Your task to perform on an android device: see creations saved in the google photos Image 0: 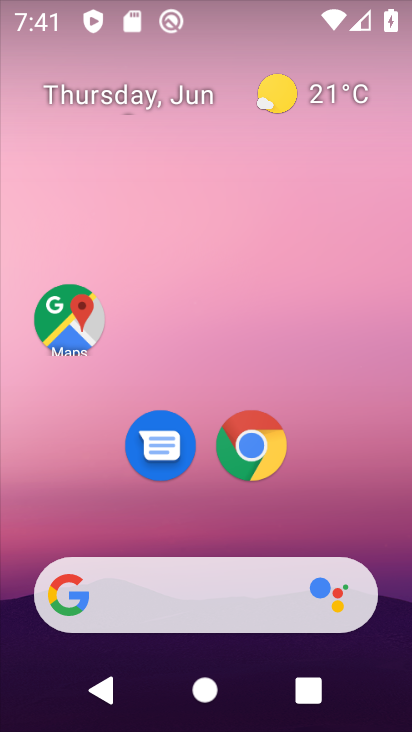
Step 0: drag from (341, 505) to (379, 192)
Your task to perform on an android device: see creations saved in the google photos Image 1: 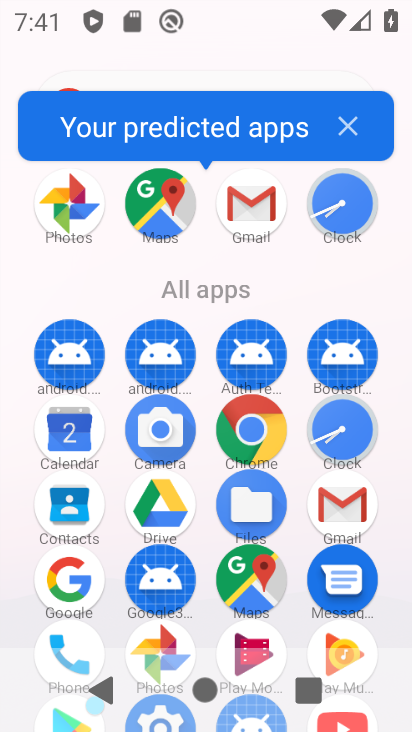
Step 1: click (73, 218)
Your task to perform on an android device: see creations saved in the google photos Image 2: 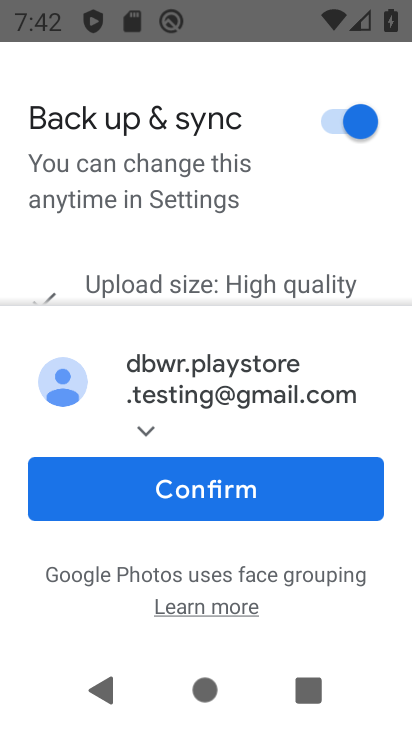
Step 2: click (237, 506)
Your task to perform on an android device: see creations saved in the google photos Image 3: 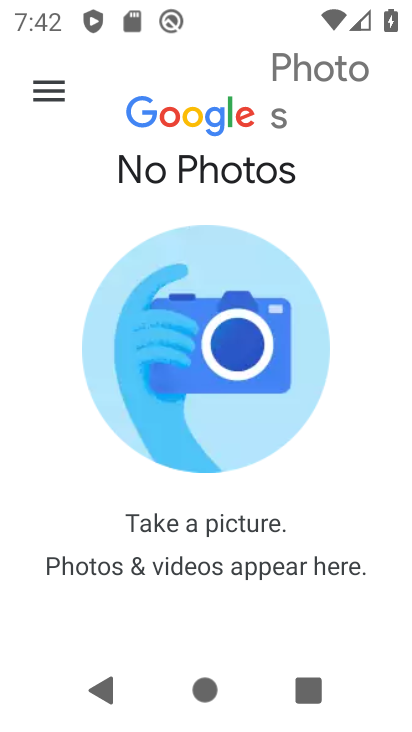
Step 3: click (58, 89)
Your task to perform on an android device: see creations saved in the google photos Image 4: 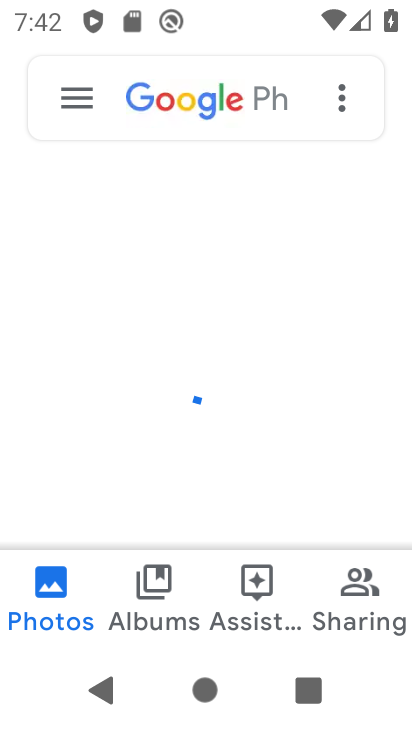
Step 4: click (185, 103)
Your task to perform on an android device: see creations saved in the google photos Image 5: 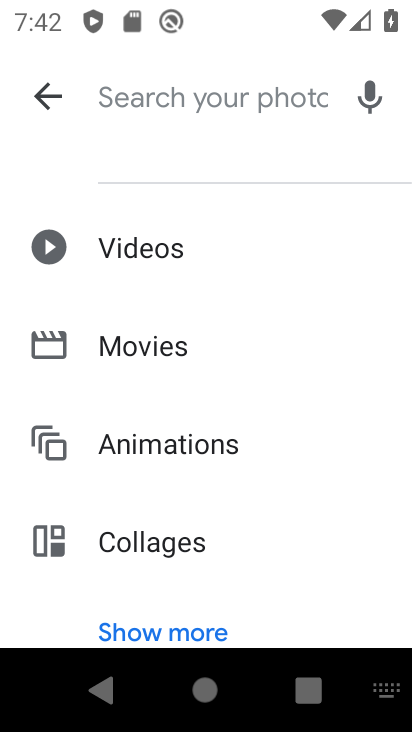
Step 5: drag from (185, 506) to (223, 222)
Your task to perform on an android device: see creations saved in the google photos Image 6: 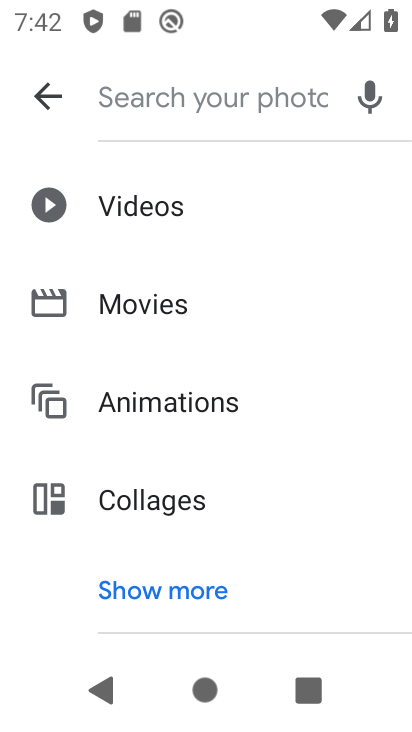
Step 6: click (195, 593)
Your task to perform on an android device: see creations saved in the google photos Image 7: 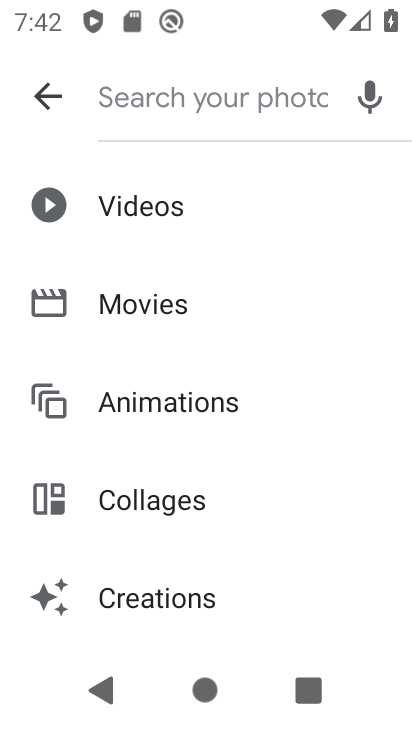
Step 7: drag from (267, 504) to (316, 284)
Your task to perform on an android device: see creations saved in the google photos Image 8: 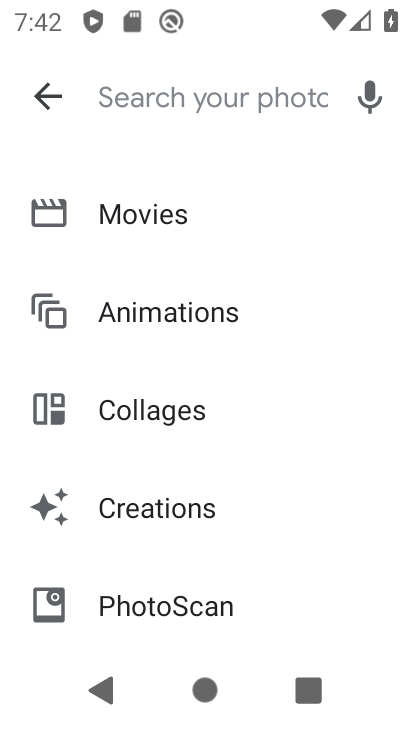
Step 8: click (185, 516)
Your task to perform on an android device: see creations saved in the google photos Image 9: 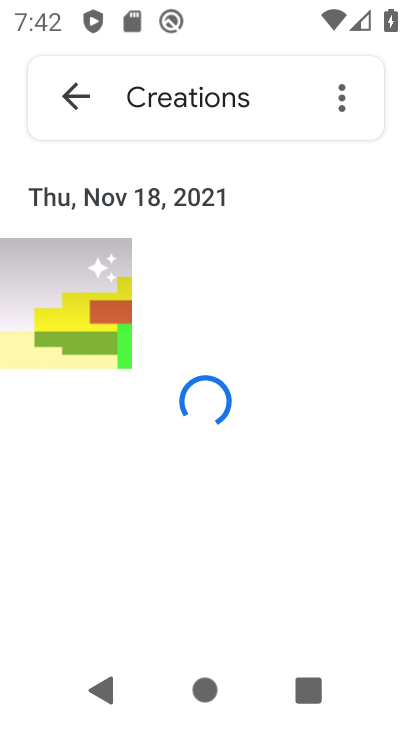
Step 9: task complete